Your task to perform on an android device: turn off javascript in the chrome app Image 0: 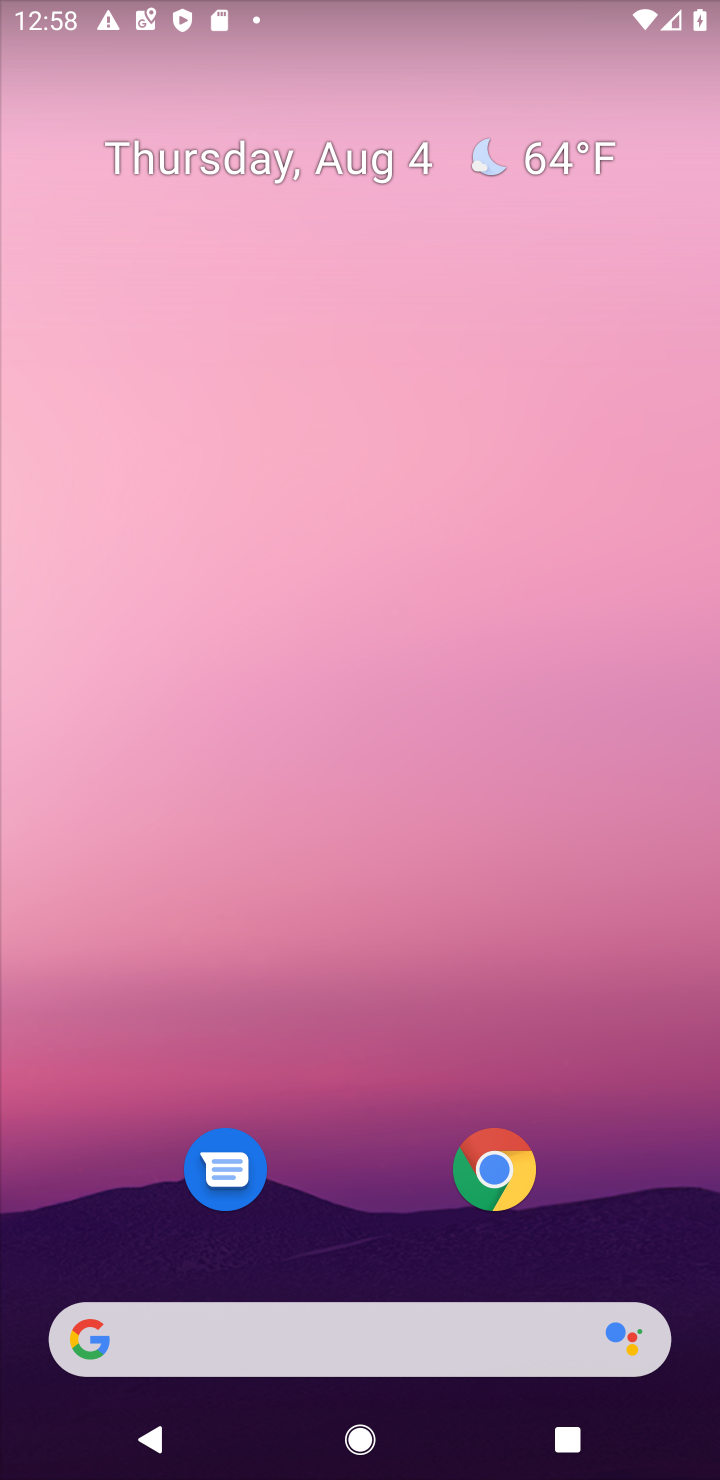
Step 0: click (508, 1169)
Your task to perform on an android device: turn off javascript in the chrome app Image 1: 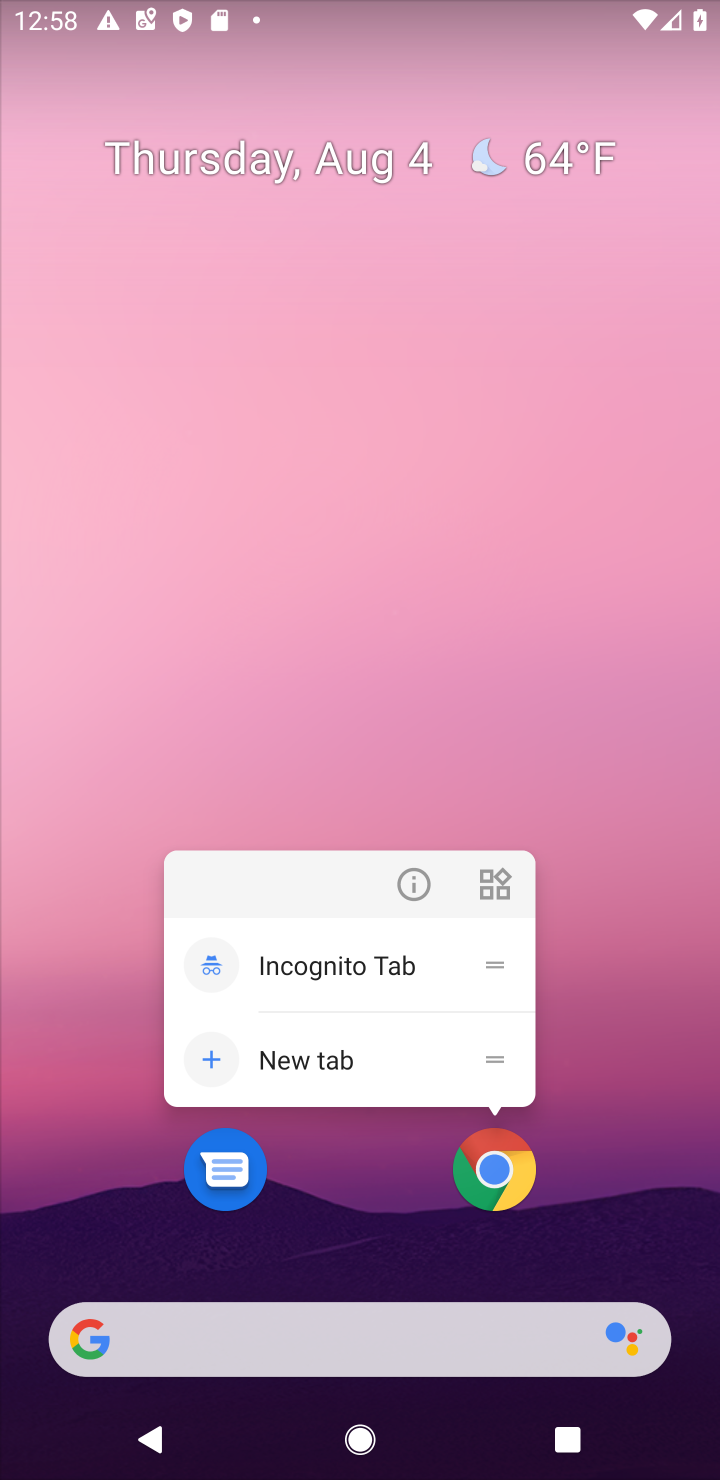
Step 1: click (506, 1169)
Your task to perform on an android device: turn off javascript in the chrome app Image 2: 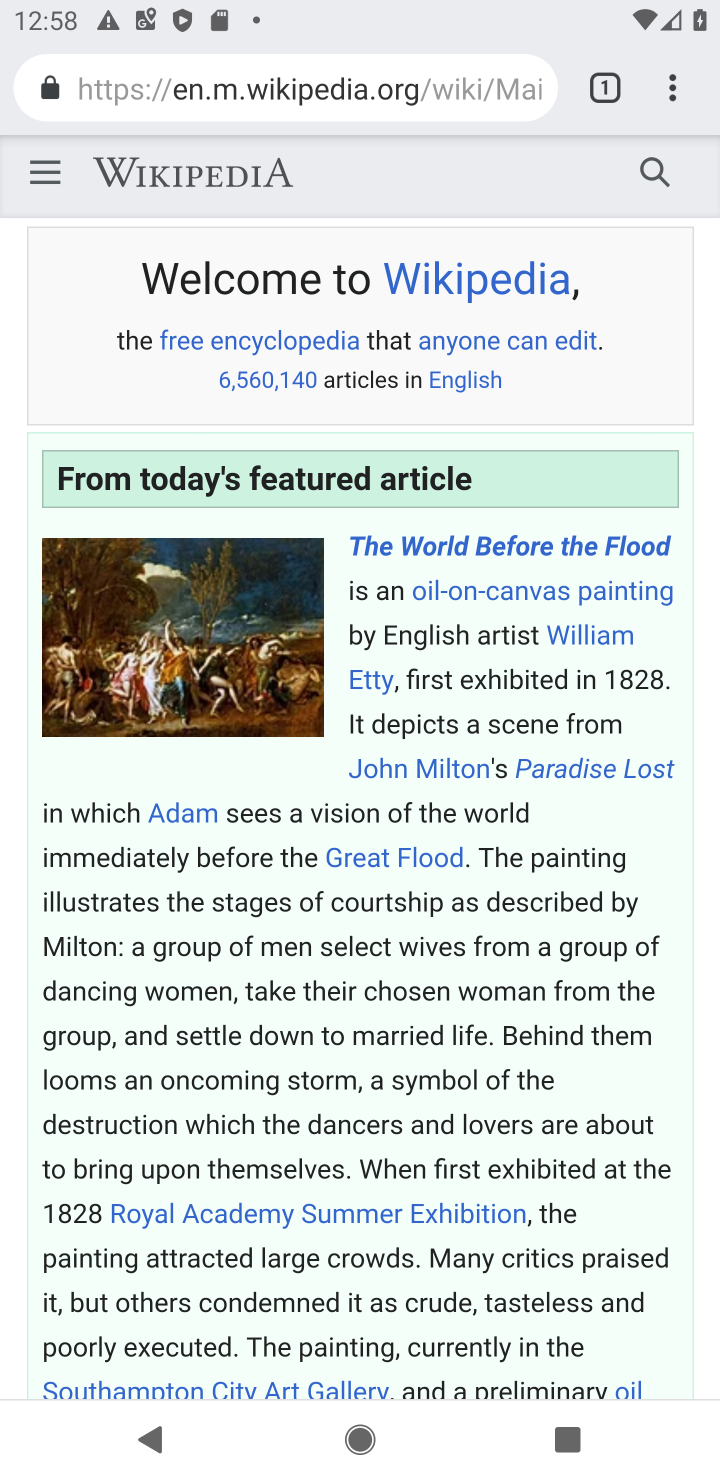
Step 2: click (503, 1171)
Your task to perform on an android device: turn off javascript in the chrome app Image 3: 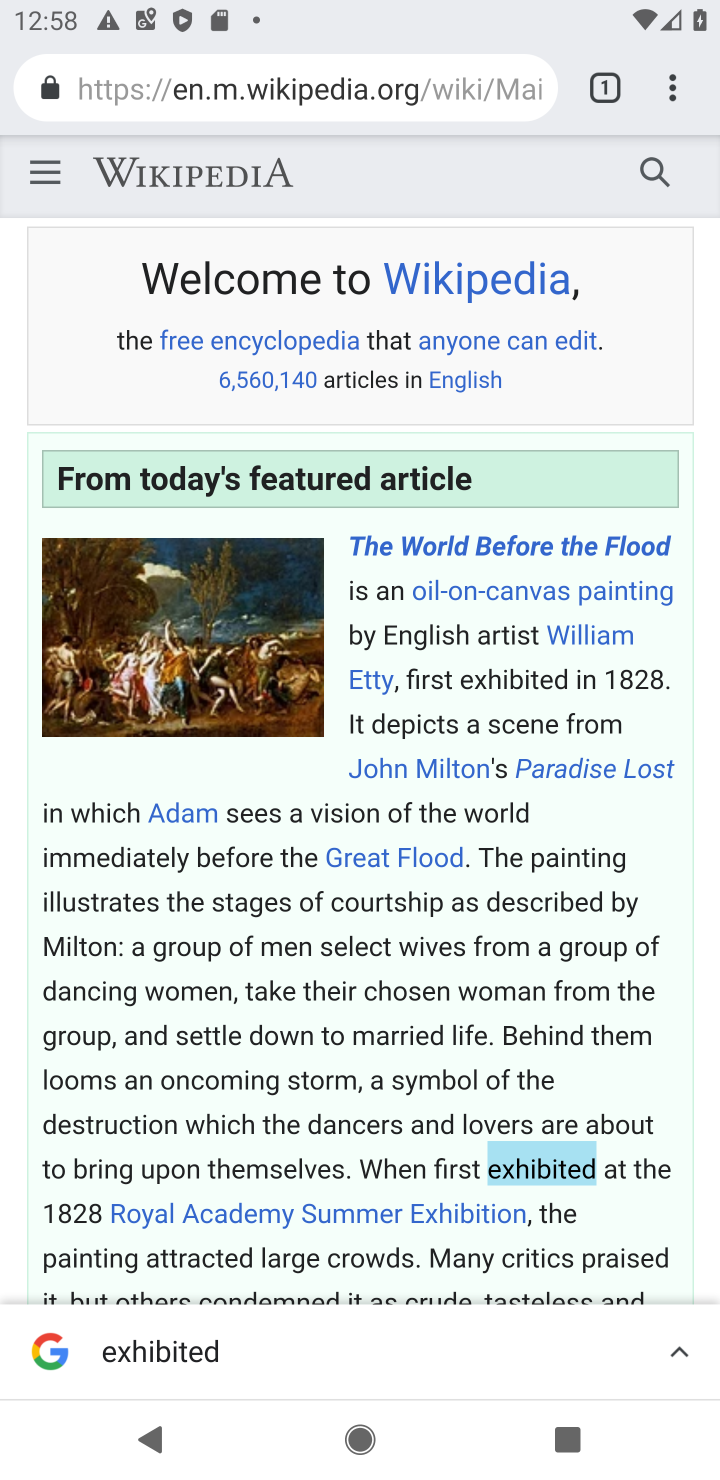
Step 3: click (498, 1166)
Your task to perform on an android device: turn off javascript in the chrome app Image 4: 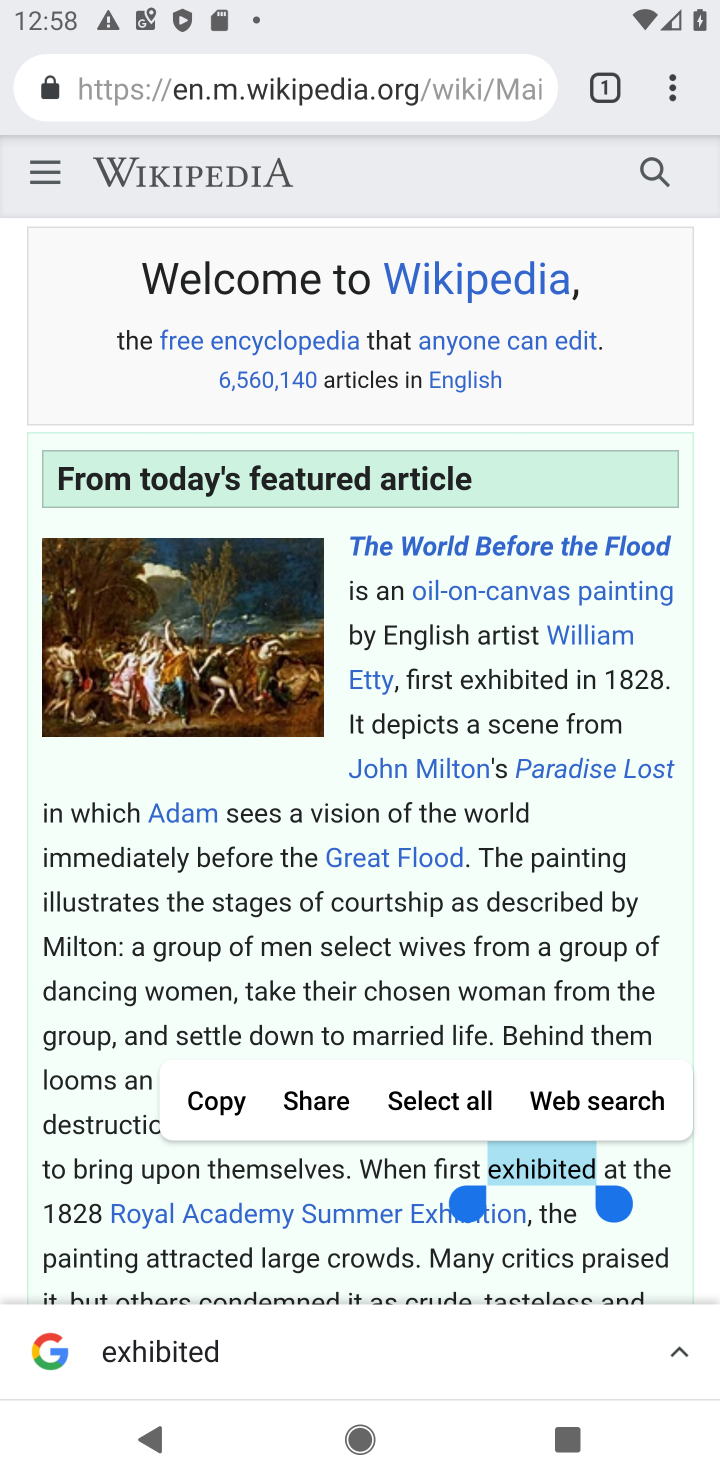
Step 4: click (667, 74)
Your task to perform on an android device: turn off javascript in the chrome app Image 5: 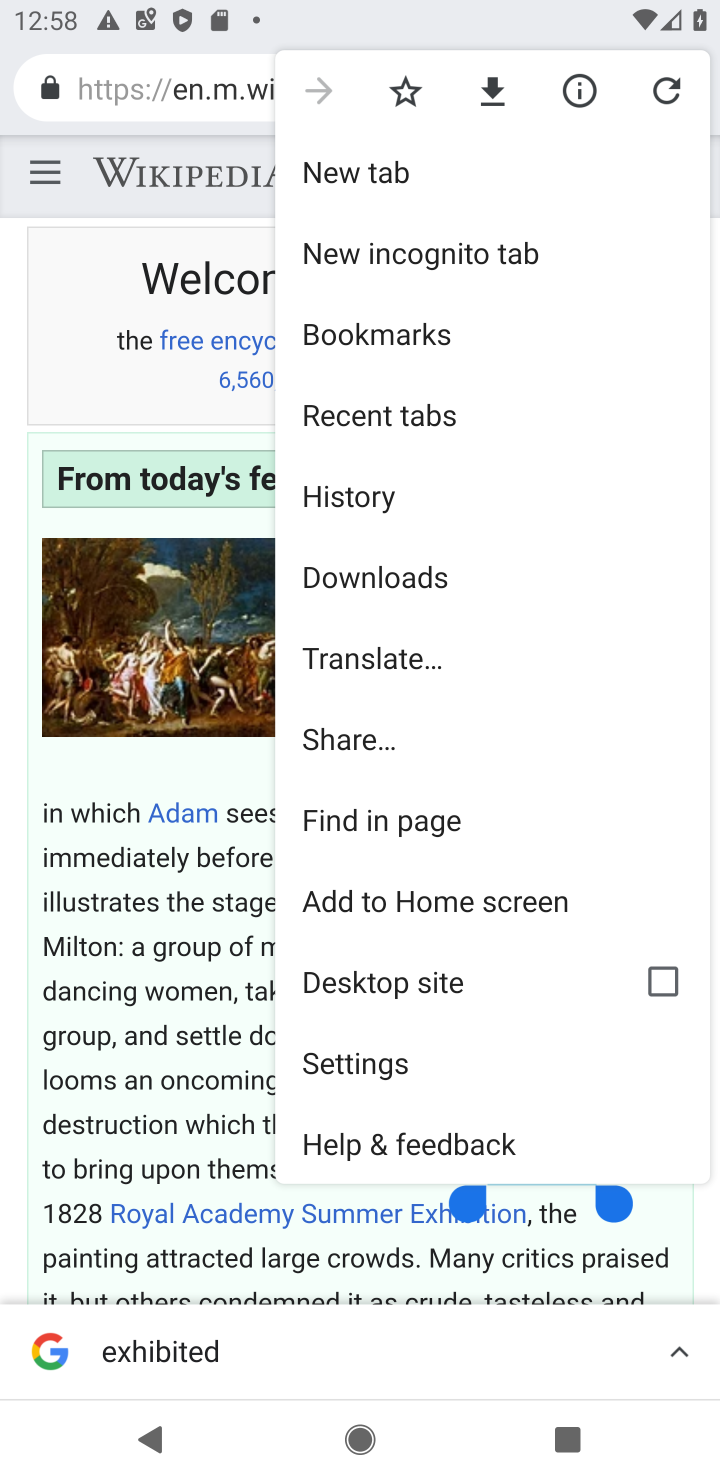
Step 5: click (674, 72)
Your task to perform on an android device: turn off javascript in the chrome app Image 6: 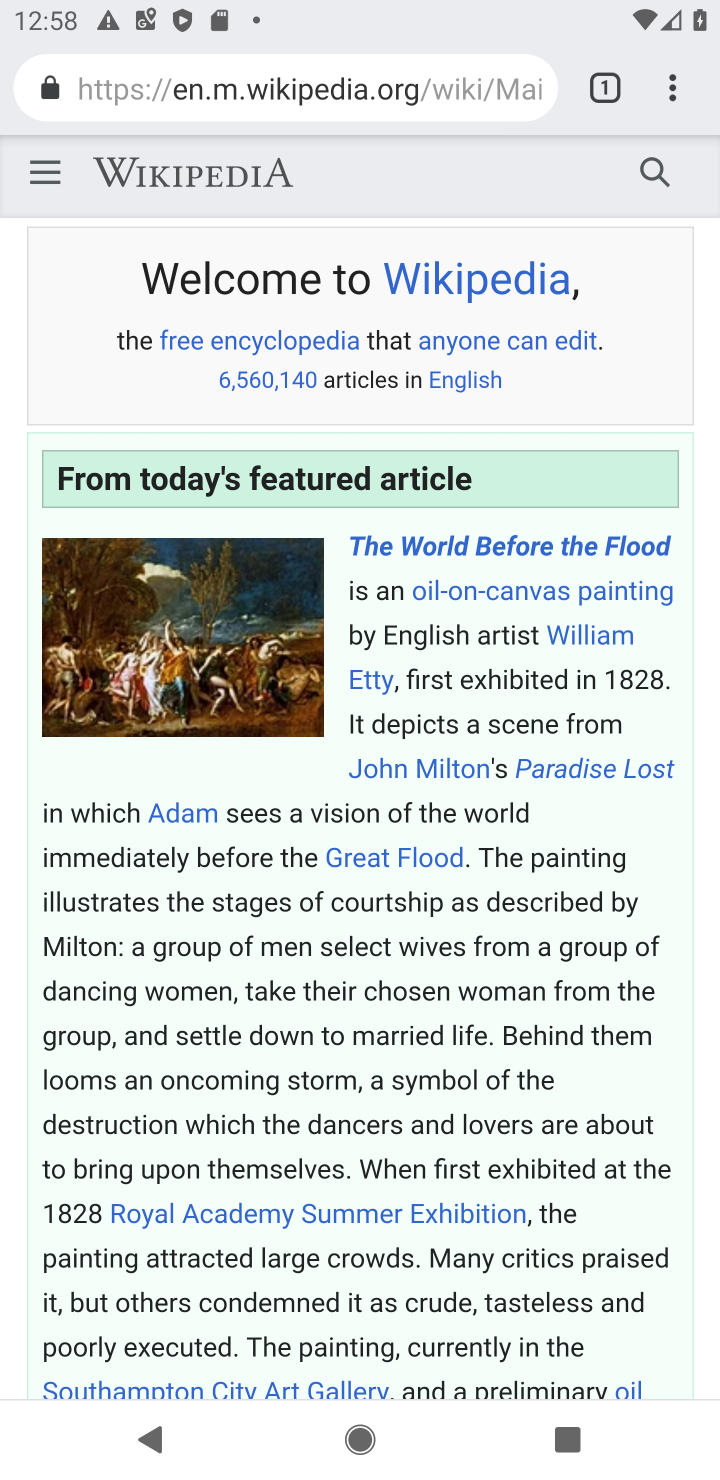
Step 6: click (345, 1066)
Your task to perform on an android device: turn off javascript in the chrome app Image 7: 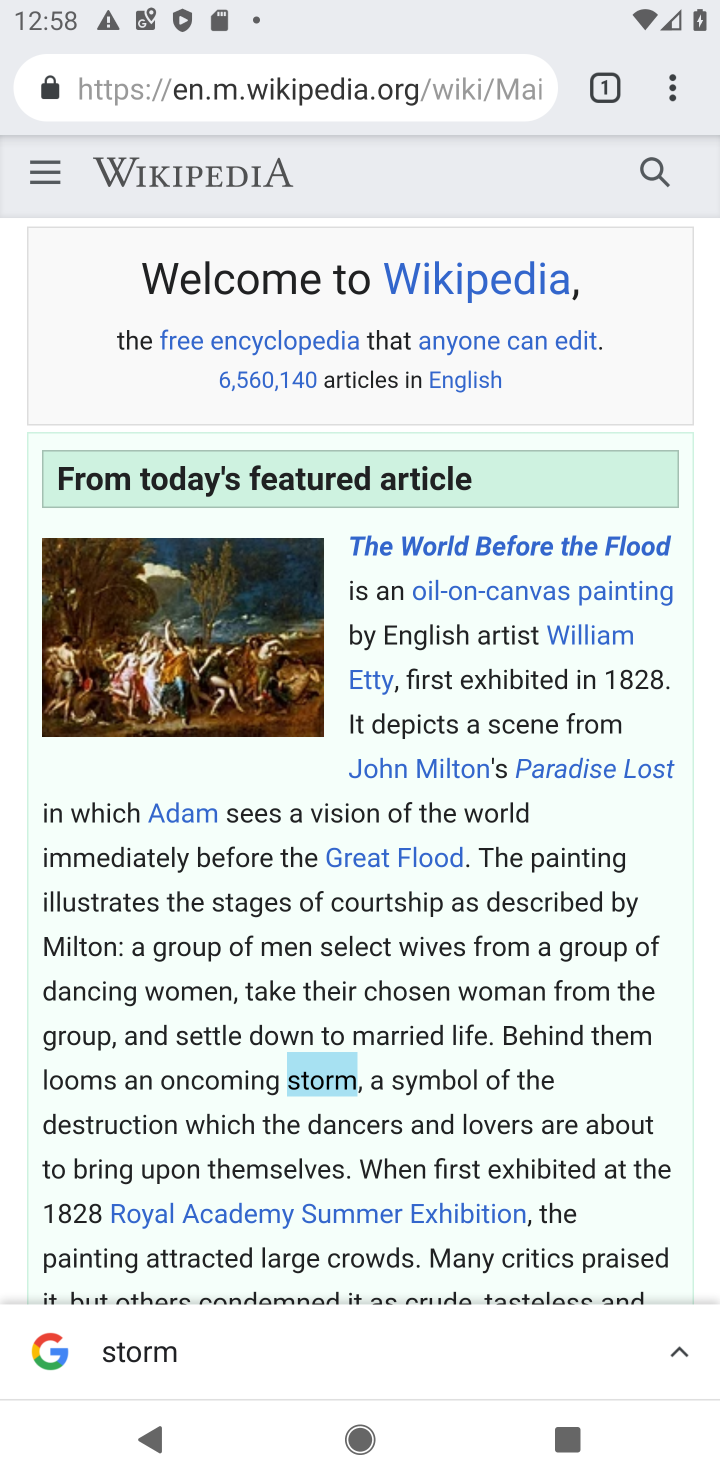
Step 7: click (675, 95)
Your task to perform on an android device: turn off javascript in the chrome app Image 8: 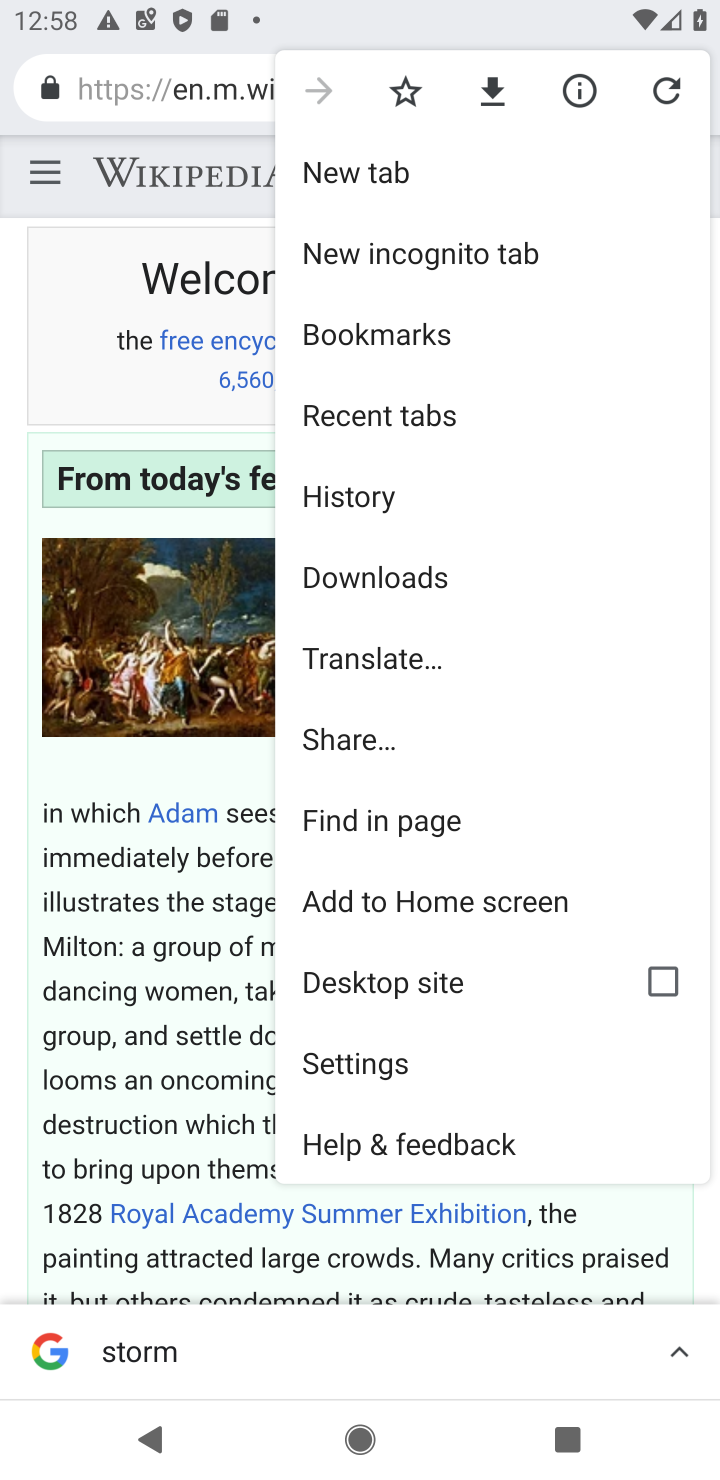
Step 8: click (655, 68)
Your task to perform on an android device: turn off javascript in the chrome app Image 9: 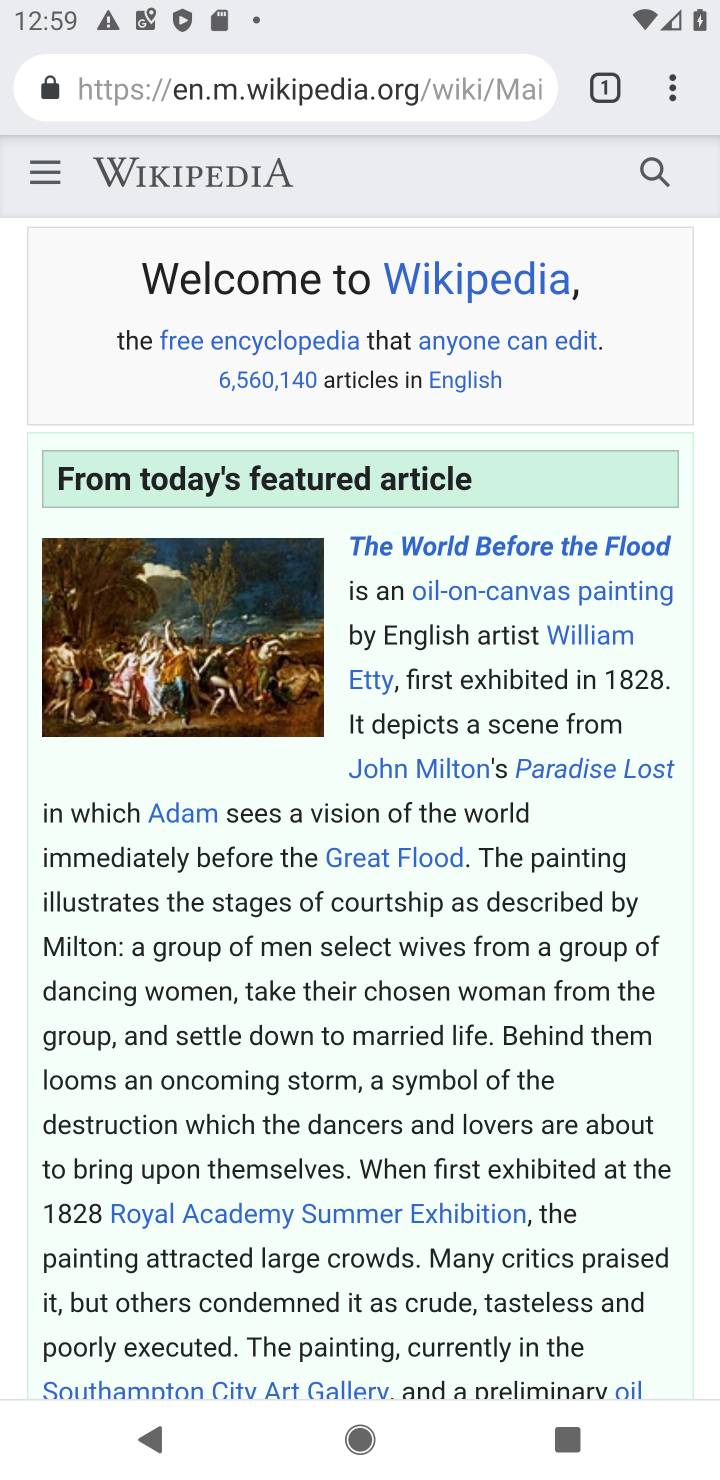
Step 9: click (674, 106)
Your task to perform on an android device: turn off javascript in the chrome app Image 10: 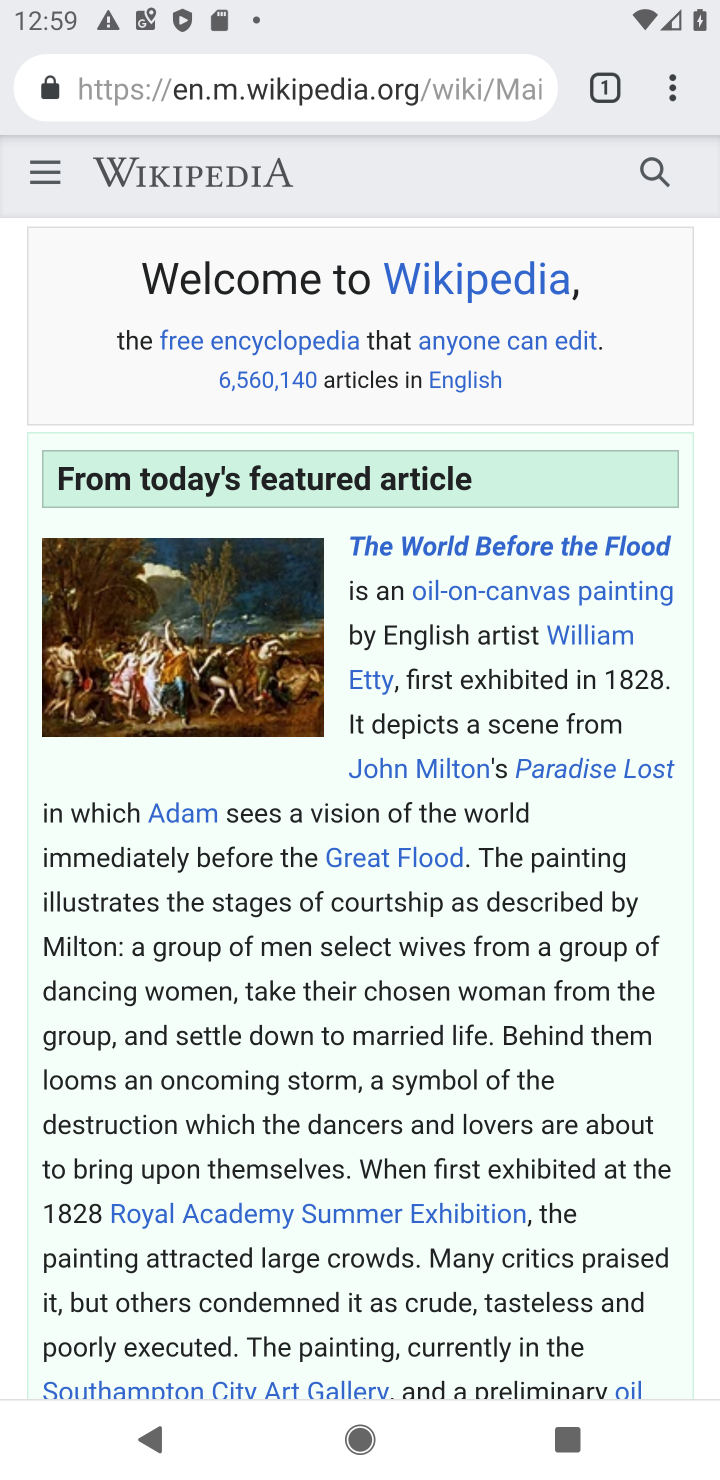
Step 10: click (675, 81)
Your task to perform on an android device: turn off javascript in the chrome app Image 11: 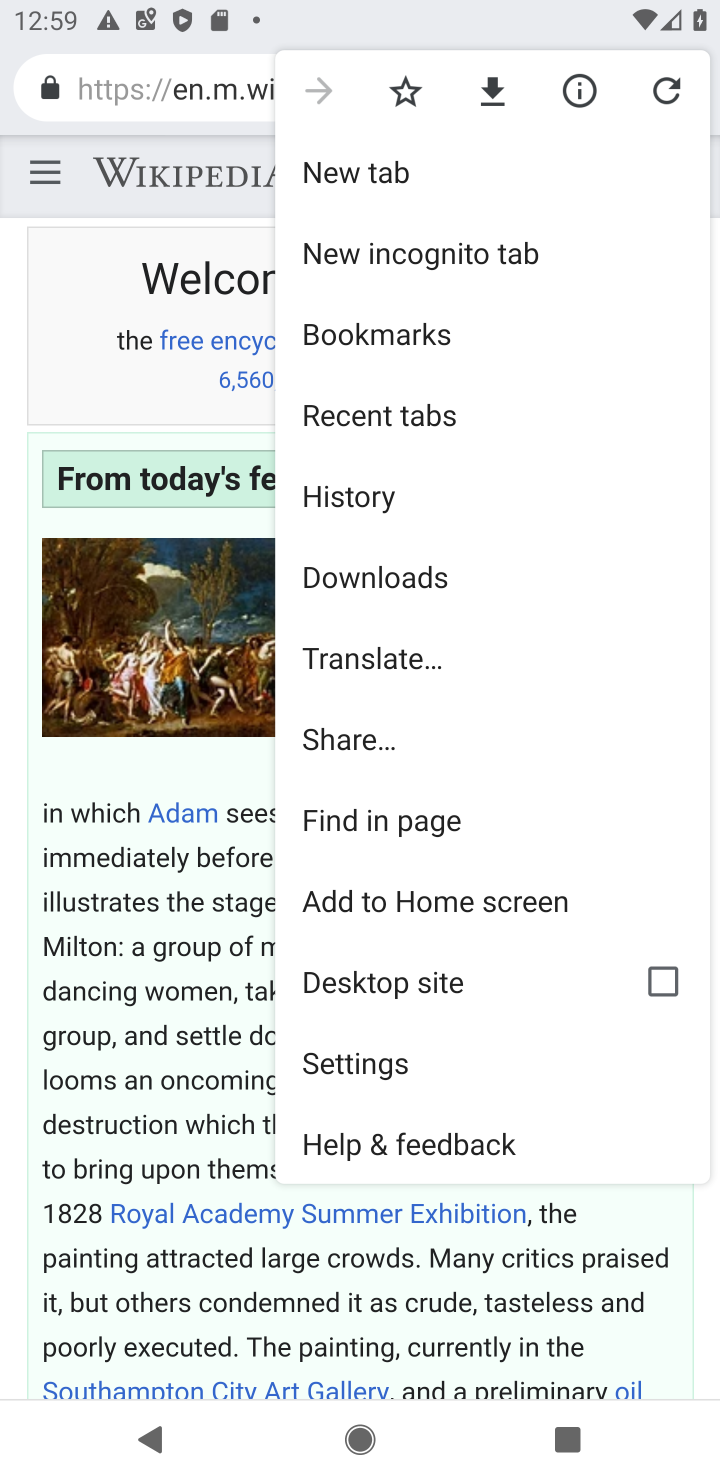
Step 11: click (369, 1071)
Your task to perform on an android device: turn off javascript in the chrome app Image 12: 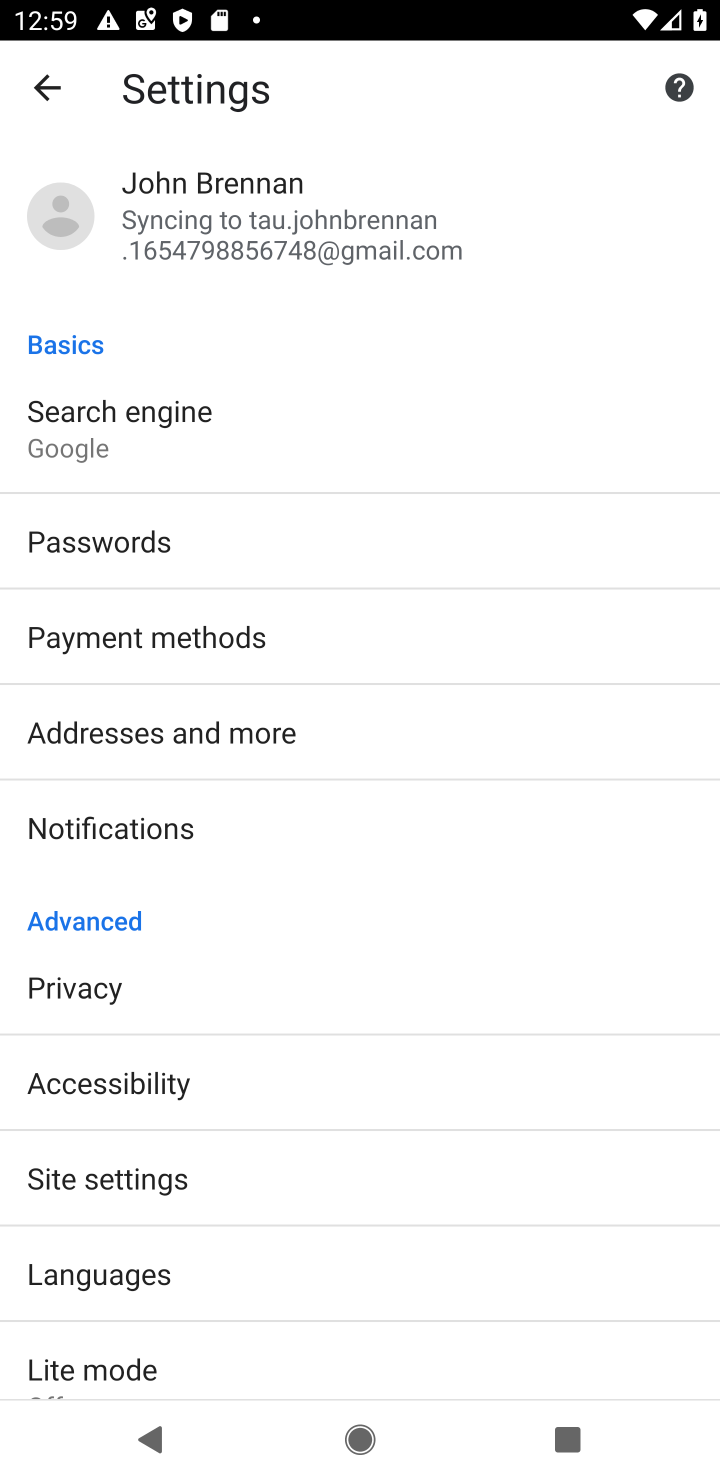
Step 12: drag from (166, 1244) to (193, 1109)
Your task to perform on an android device: turn off javascript in the chrome app Image 13: 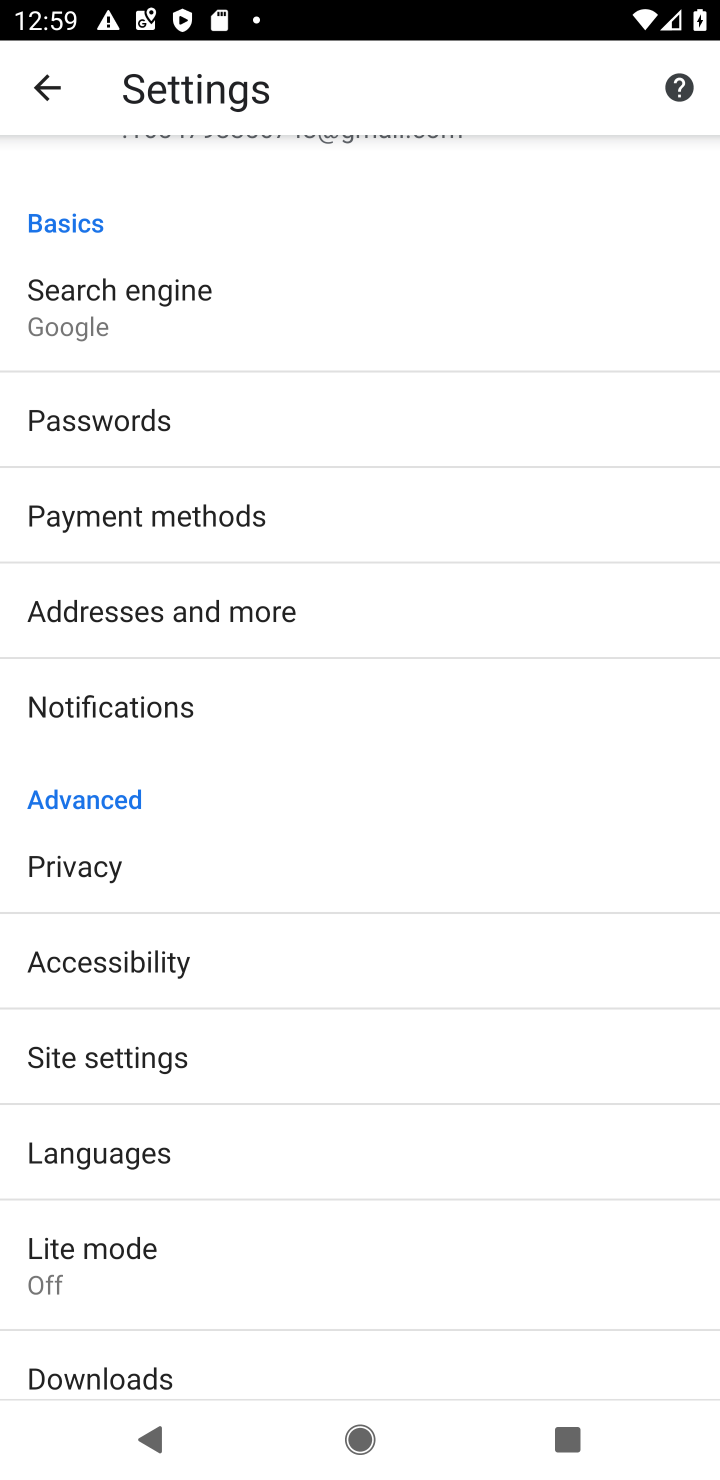
Step 13: click (119, 1064)
Your task to perform on an android device: turn off javascript in the chrome app Image 14: 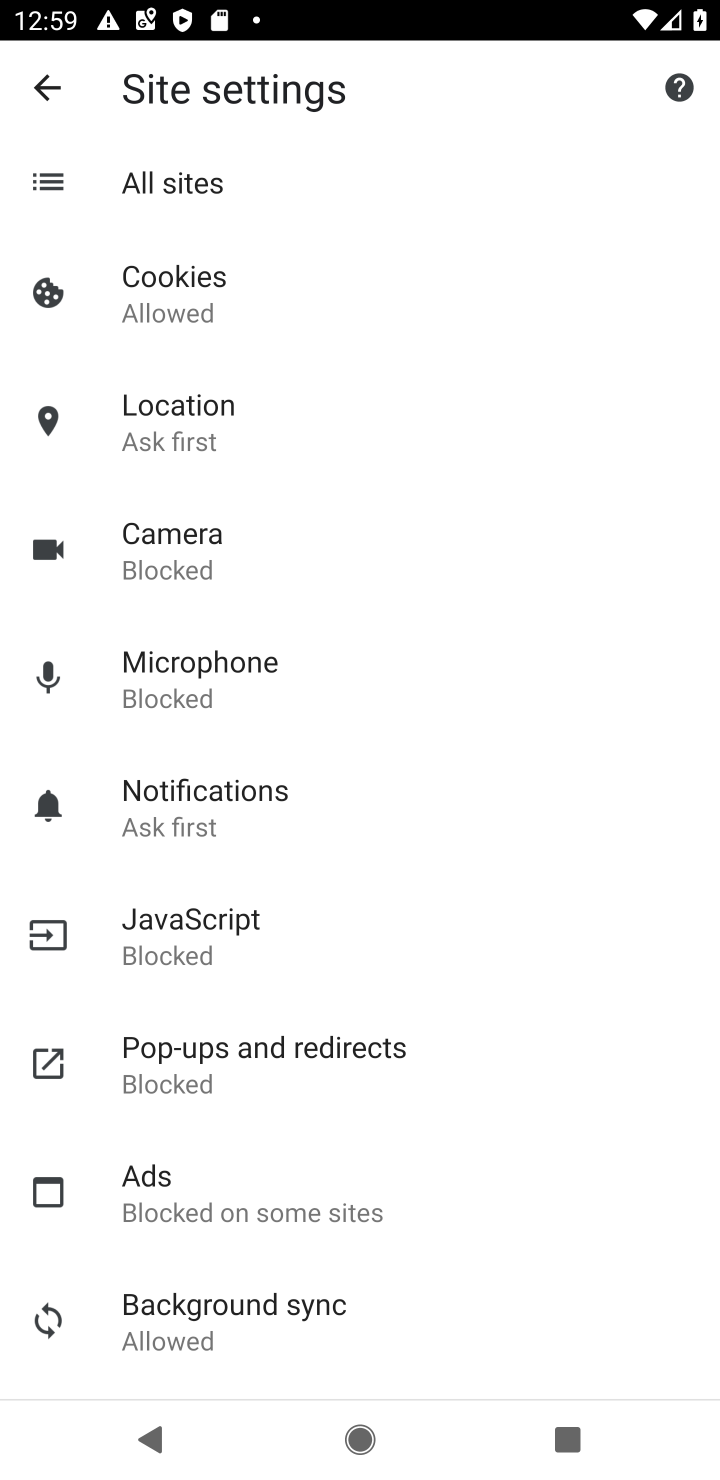
Step 14: click (198, 944)
Your task to perform on an android device: turn off javascript in the chrome app Image 15: 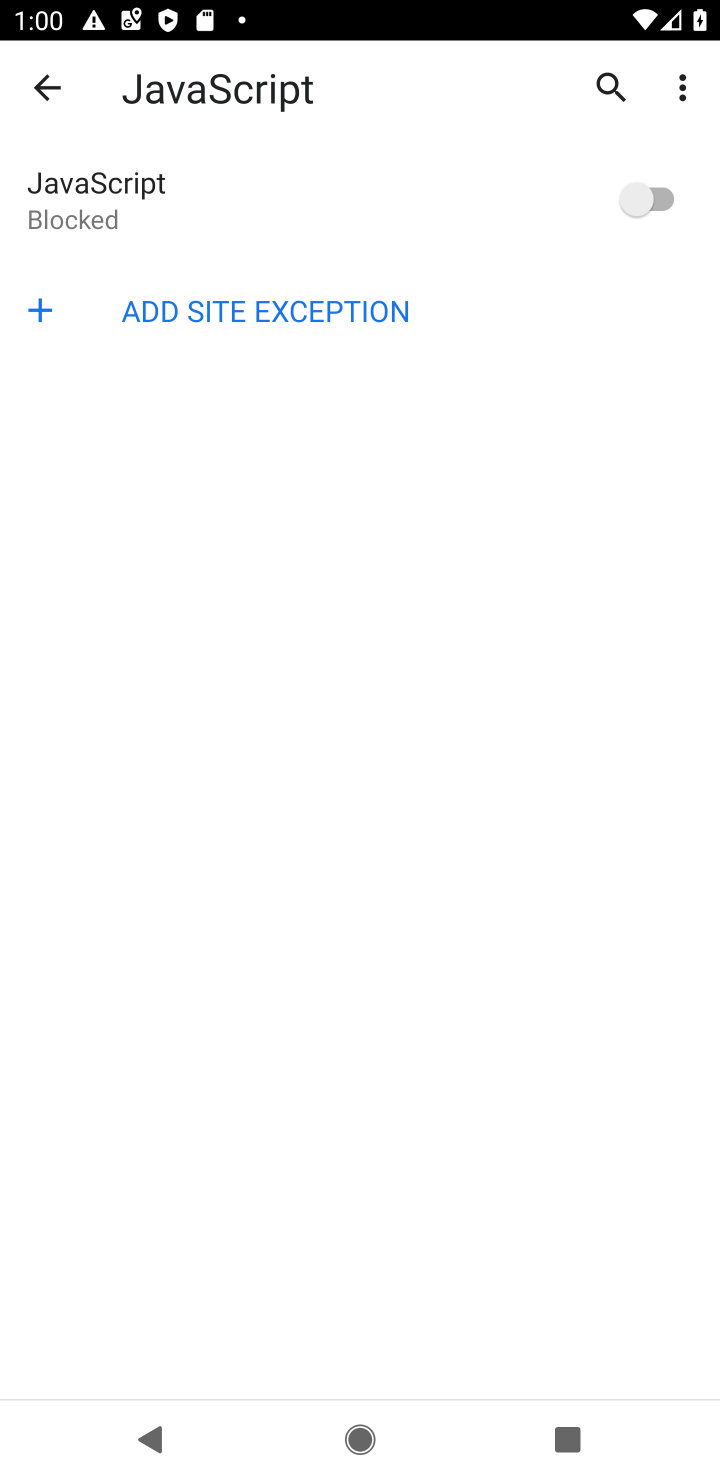
Step 15: task complete